Your task to perform on an android device: toggle improve location accuracy Image 0: 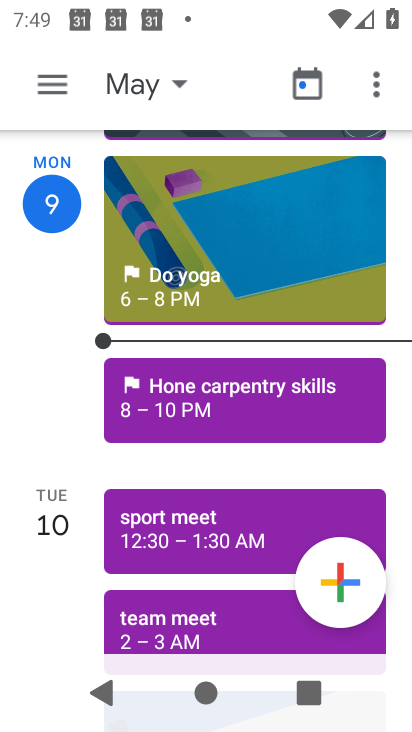
Step 0: press home button
Your task to perform on an android device: toggle improve location accuracy Image 1: 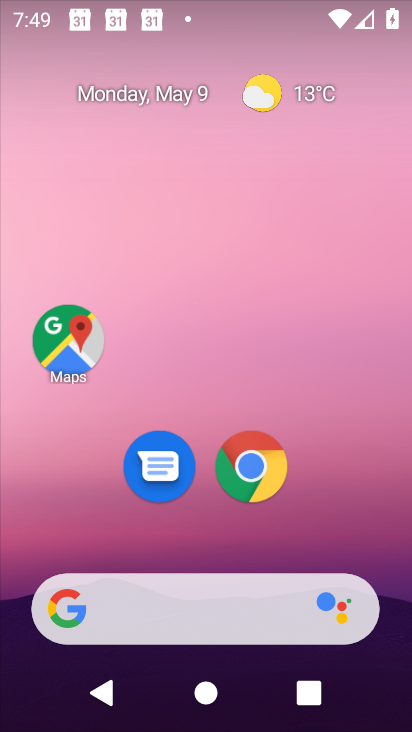
Step 1: drag from (332, 523) to (326, 233)
Your task to perform on an android device: toggle improve location accuracy Image 2: 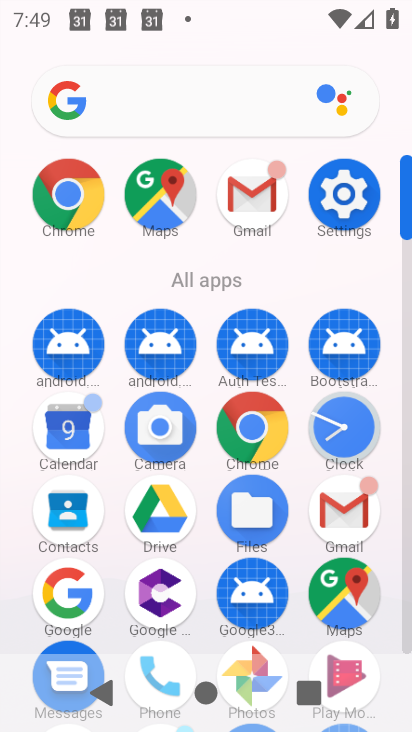
Step 2: click (333, 196)
Your task to perform on an android device: toggle improve location accuracy Image 3: 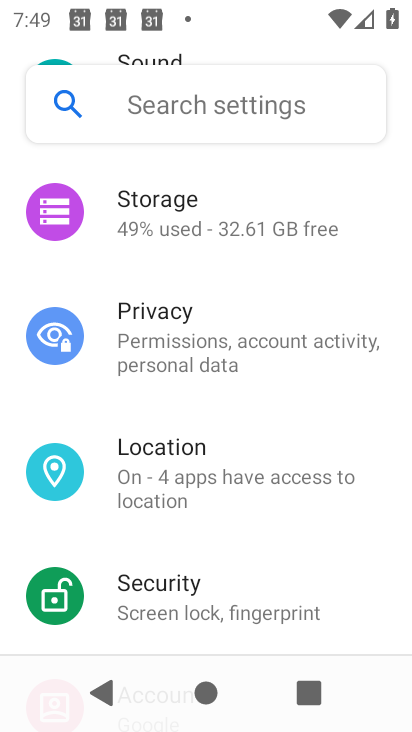
Step 3: click (163, 482)
Your task to perform on an android device: toggle improve location accuracy Image 4: 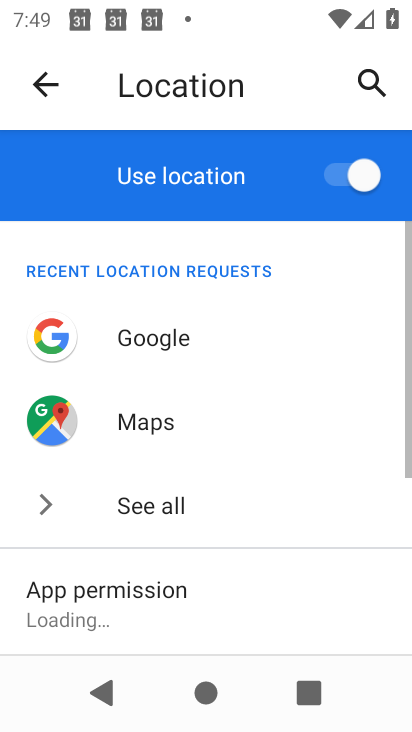
Step 4: drag from (234, 594) to (287, 211)
Your task to perform on an android device: toggle improve location accuracy Image 5: 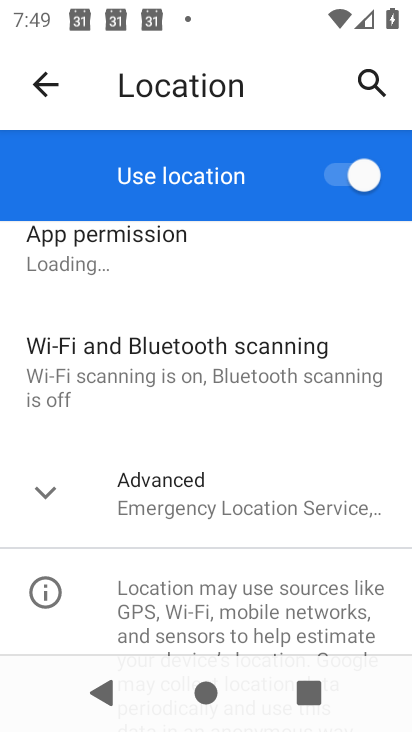
Step 5: click (179, 483)
Your task to perform on an android device: toggle improve location accuracy Image 6: 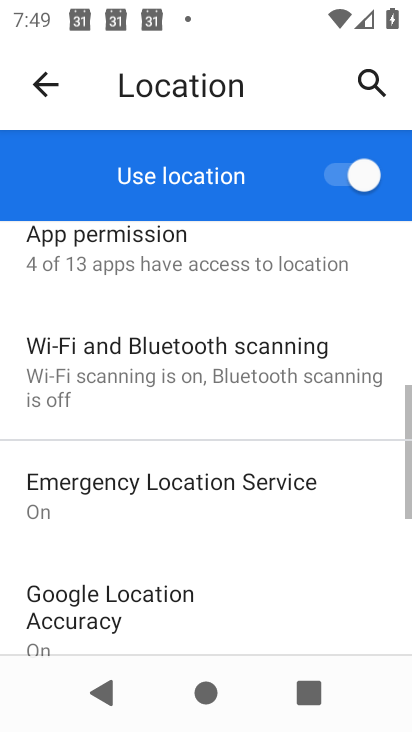
Step 6: drag from (225, 550) to (259, 326)
Your task to perform on an android device: toggle improve location accuracy Image 7: 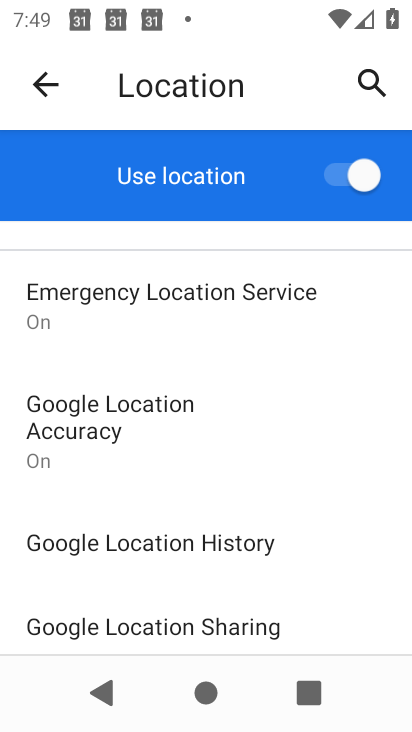
Step 7: click (116, 437)
Your task to perform on an android device: toggle improve location accuracy Image 8: 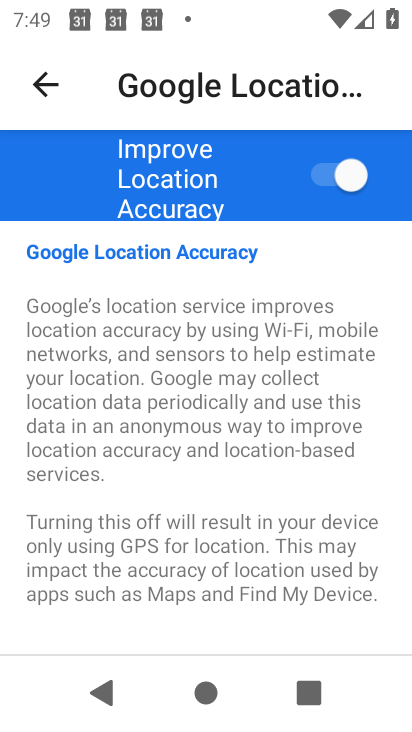
Step 8: click (324, 163)
Your task to perform on an android device: toggle improve location accuracy Image 9: 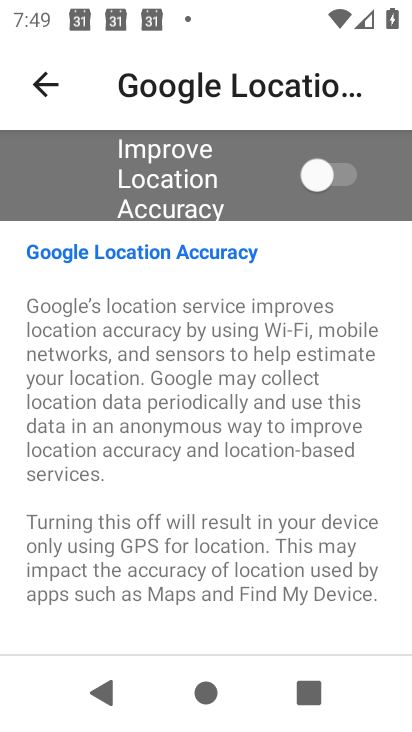
Step 9: task complete